Your task to perform on an android device: change the clock display to show seconds Image 0: 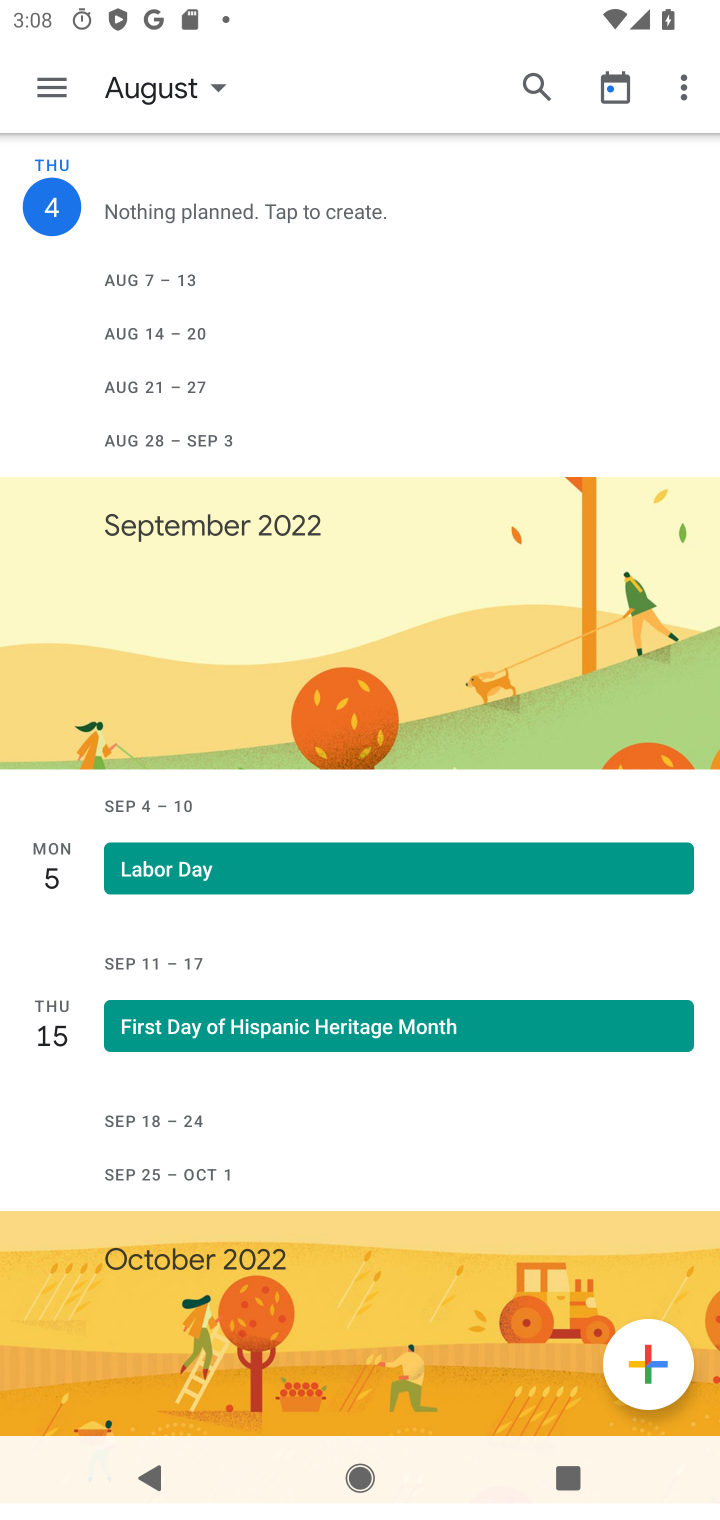
Step 0: press back button
Your task to perform on an android device: change the clock display to show seconds Image 1: 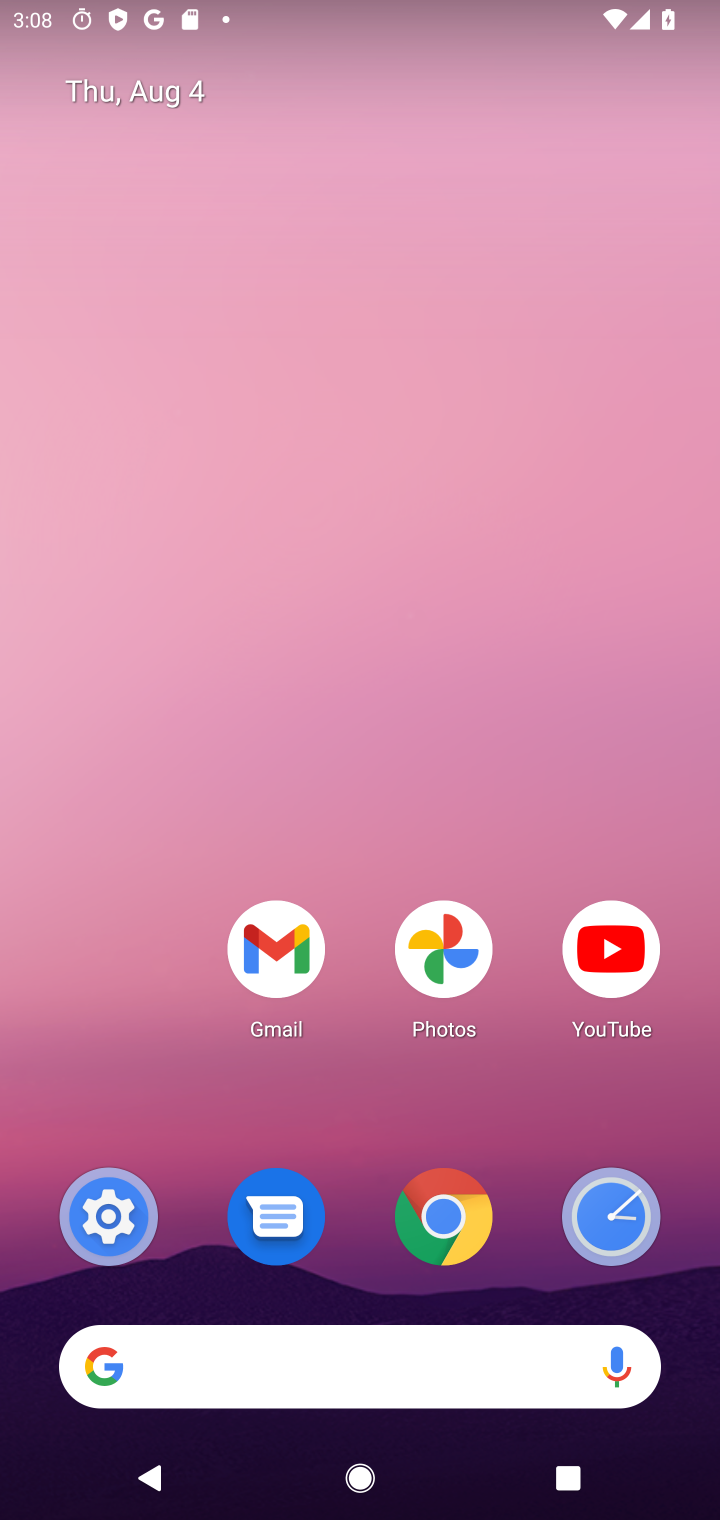
Step 1: click (638, 1205)
Your task to perform on an android device: change the clock display to show seconds Image 2: 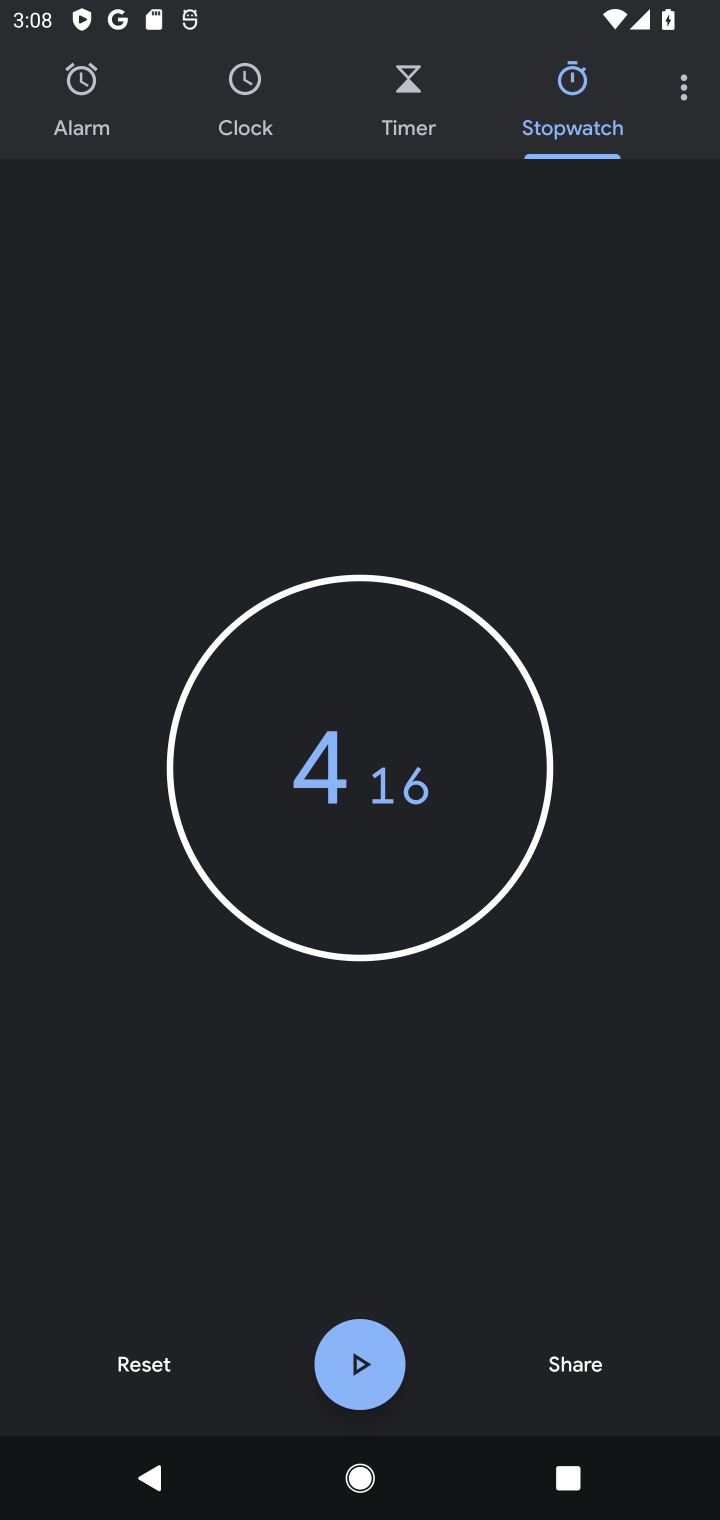
Step 2: click (266, 105)
Your task to perform on an android device: change the clock display to show seconds Image 3: 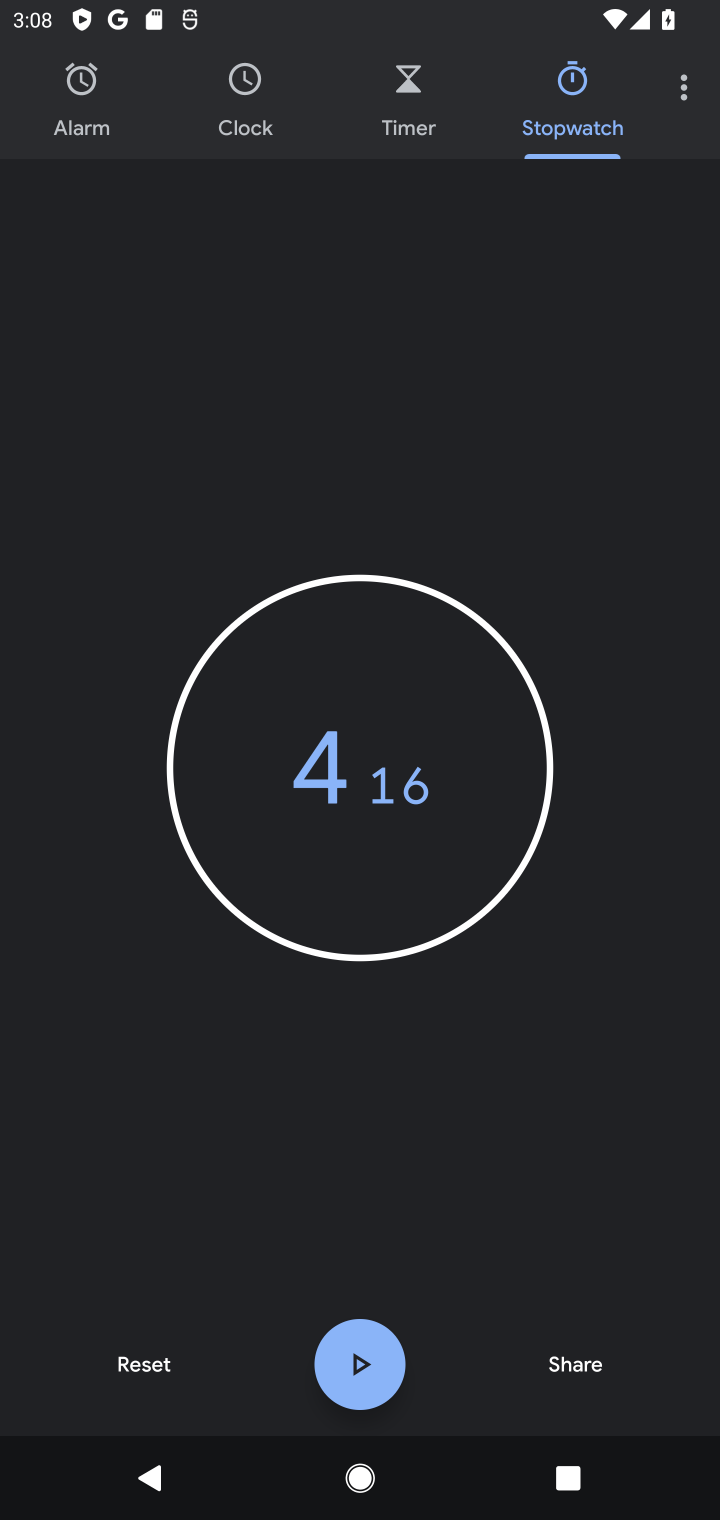
Step 3: click (244, 90)
Your task to perform on an android device: change the clock display to show seconds Image 4: 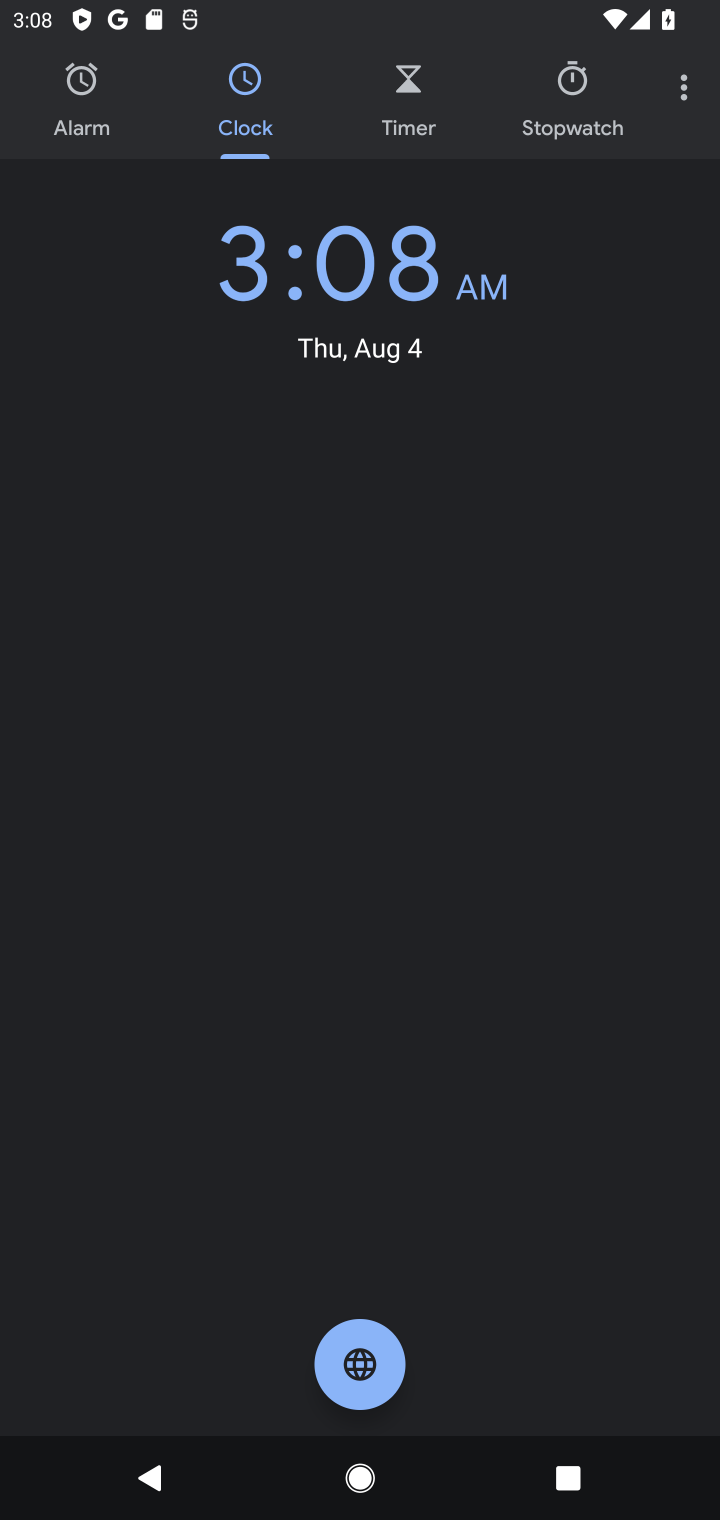
Step 4: click (699, 82)
Your task to perform on an android device: change the clock display to show seconds Image 5: 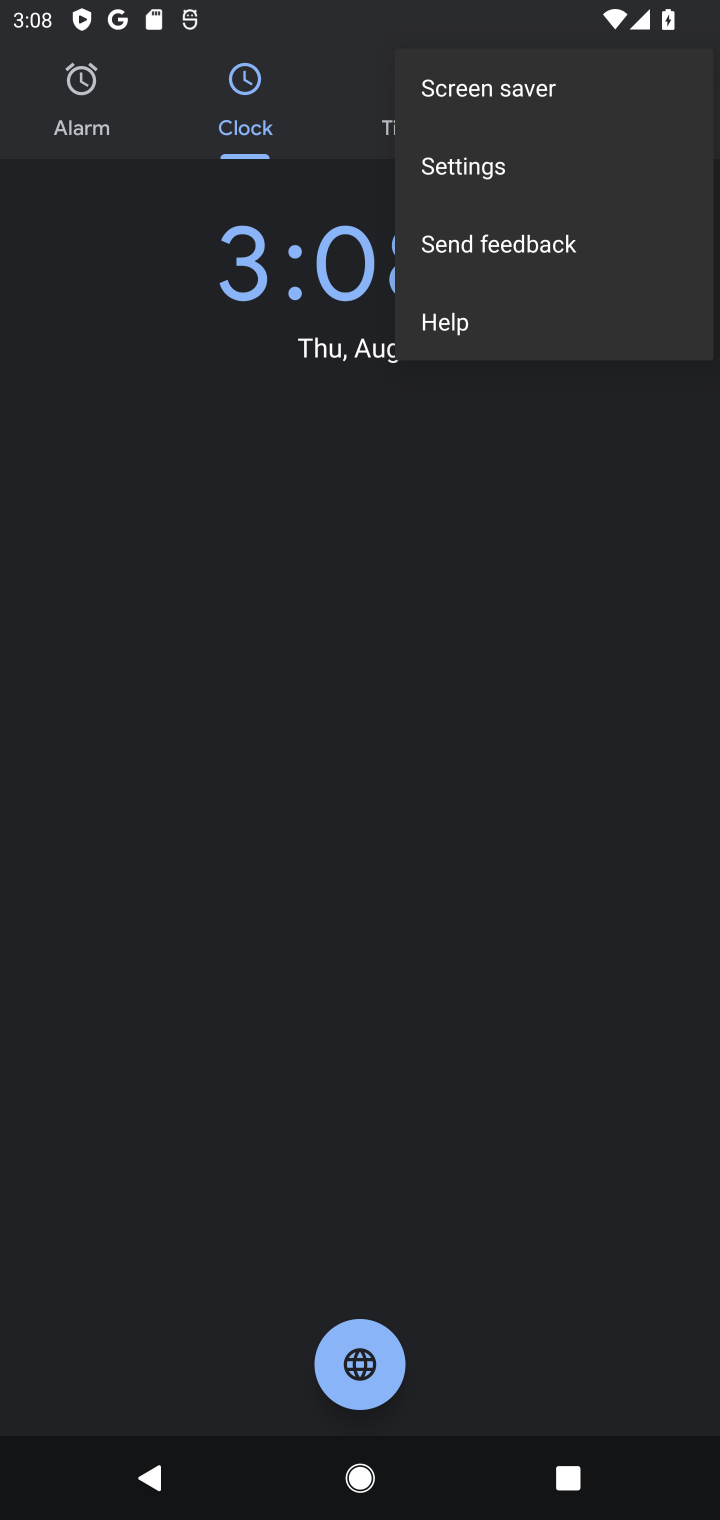
Step 5: click (540, 155)
Your task to perform on an android device: change the clock display to show seconds Image 6: 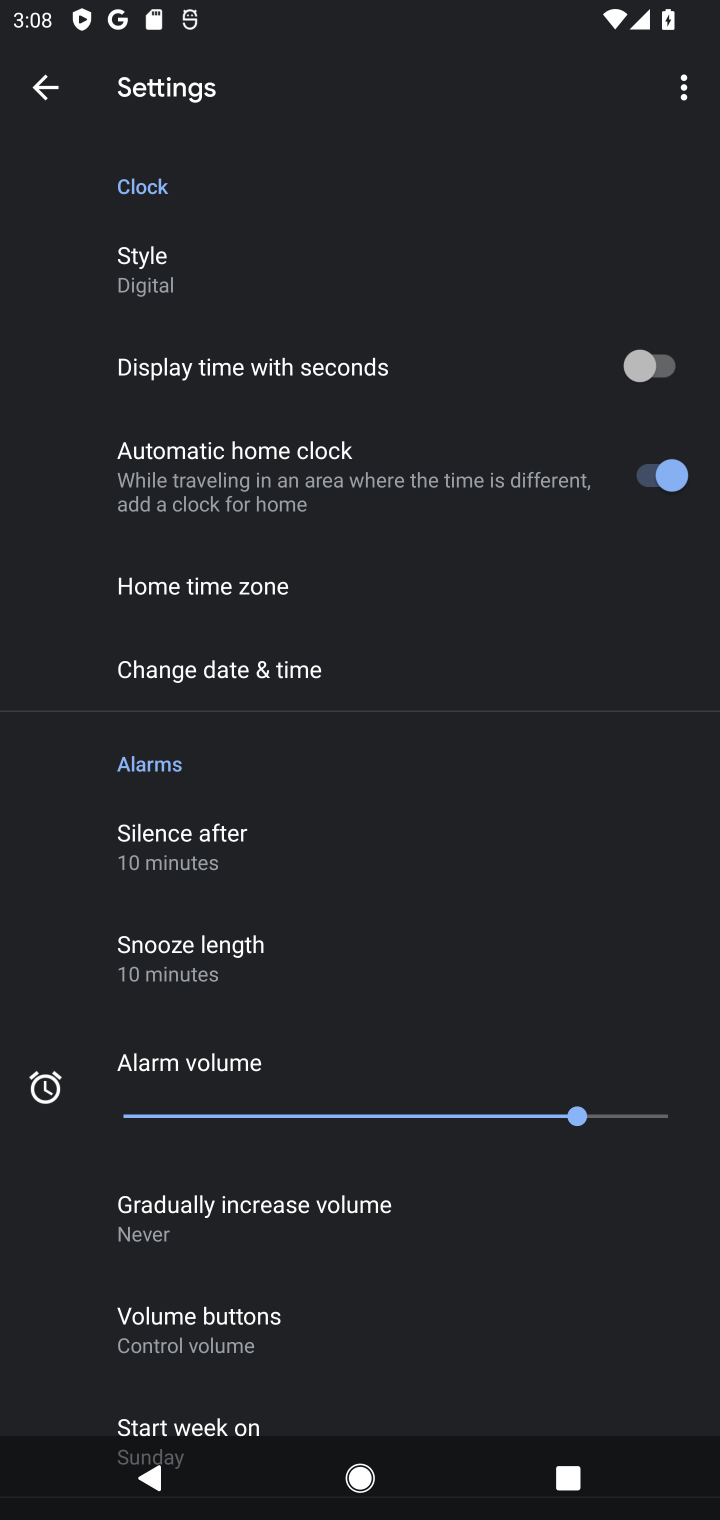
Step 6: click (689, 382)
Your task to perform on an android device: change the clock display to show seconds Image 7: 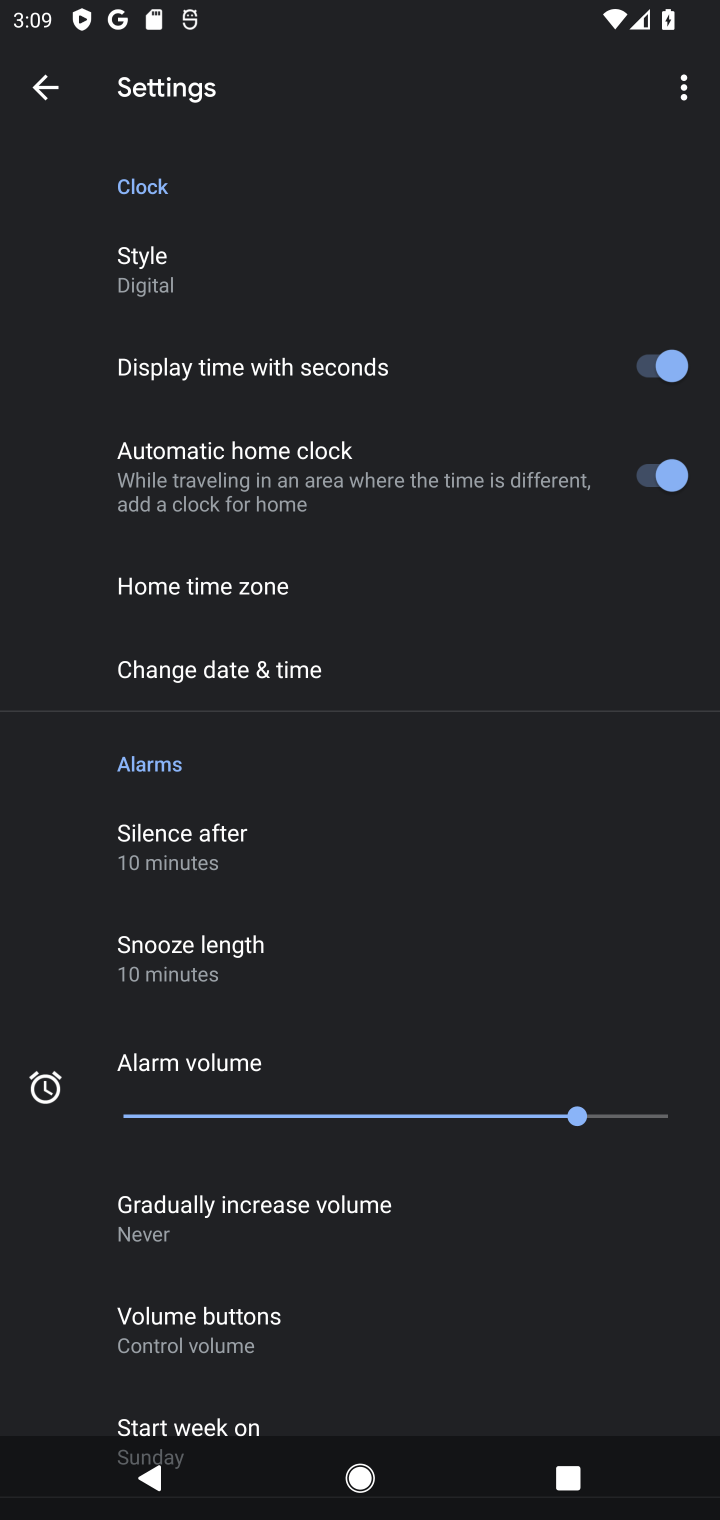
Step 7: task complete